Your task to perform on an android device: What's the weather going to be this weekend? Image 0: 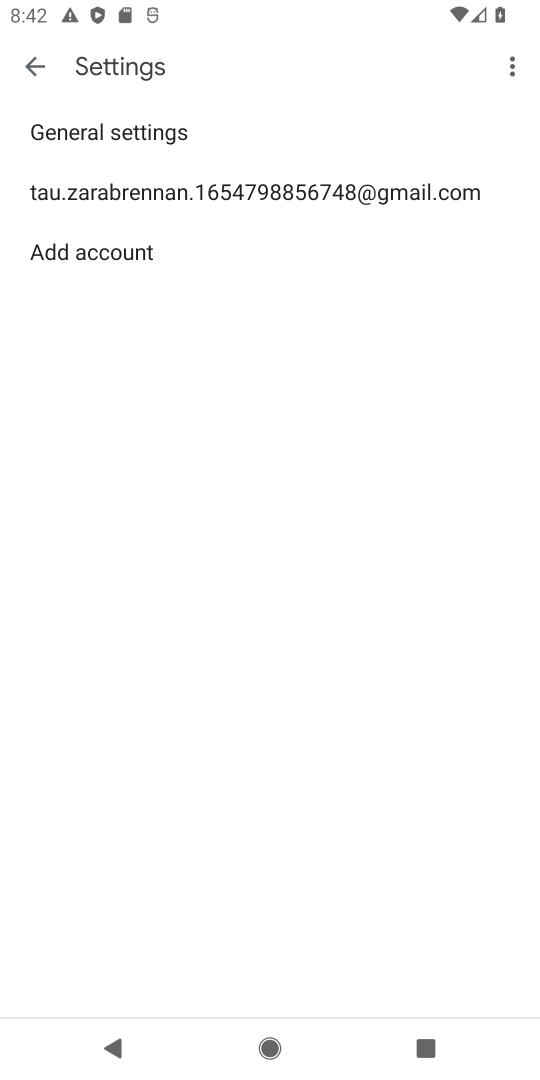
Step 0: press home button
Your task to perform on an android device: What's the weather going to be this weekend? Image 1: 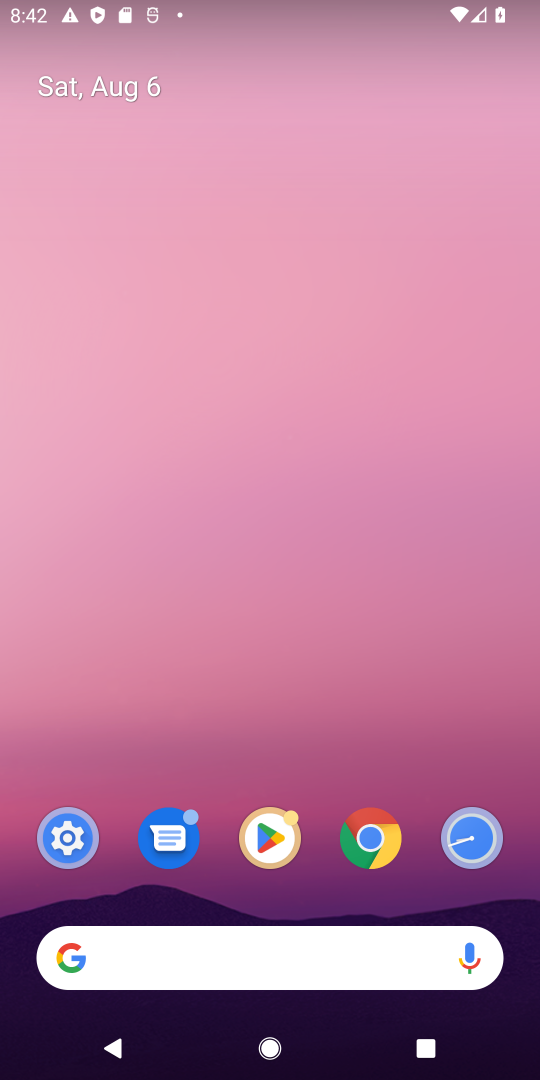
Step 1: drag from (317, 798) to (263, 11)
Your task to perform on an android device: What's the weather going to be this weekend? Image 2: 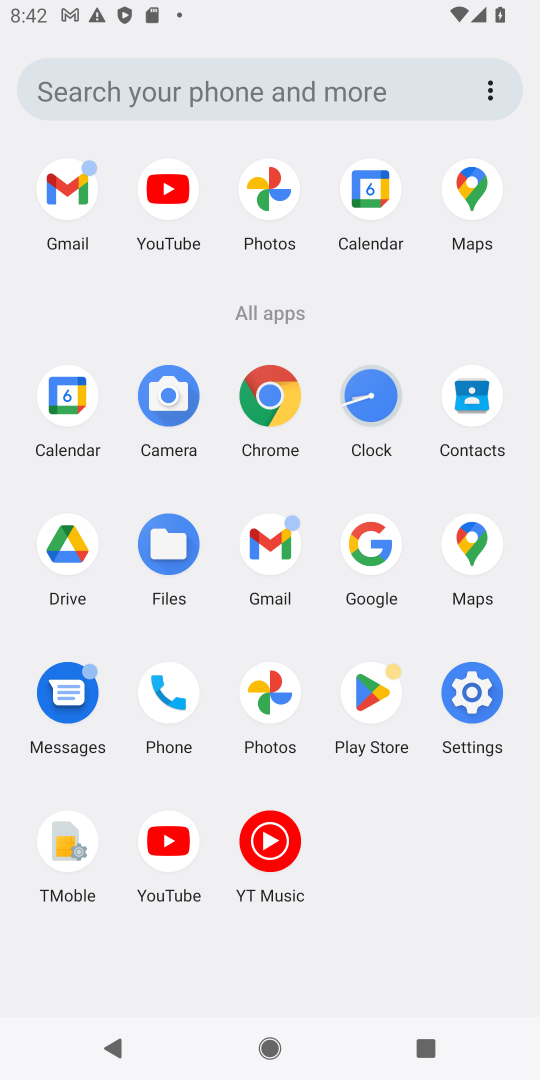
Step 2: click (389, 543)
Your task to perform on an android device: What's the weather going to be this weekend? Image 3: 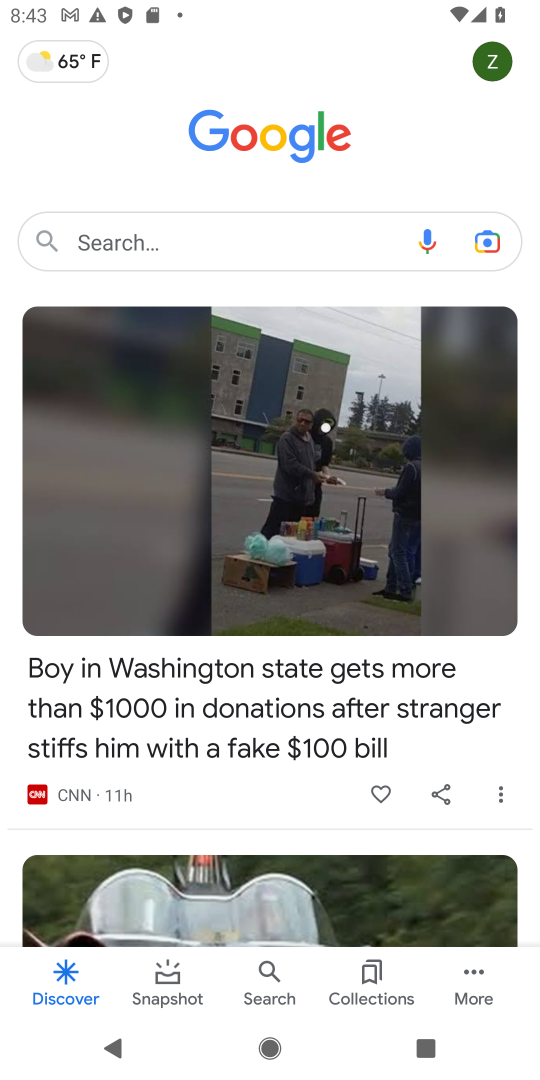
Step 3: click (198, 233)
Your task to perform on an android device: What's the weather going to be this weekend? Image 4: 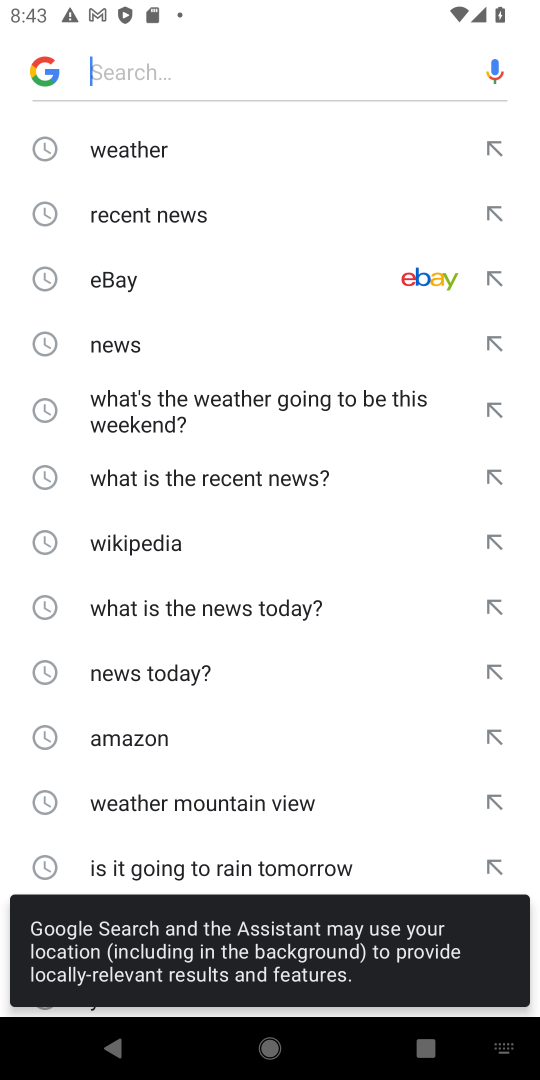
Step 4: click (176, 160)
Your task to perform on an android device: What's the weather going to be this weekend? Image 5: 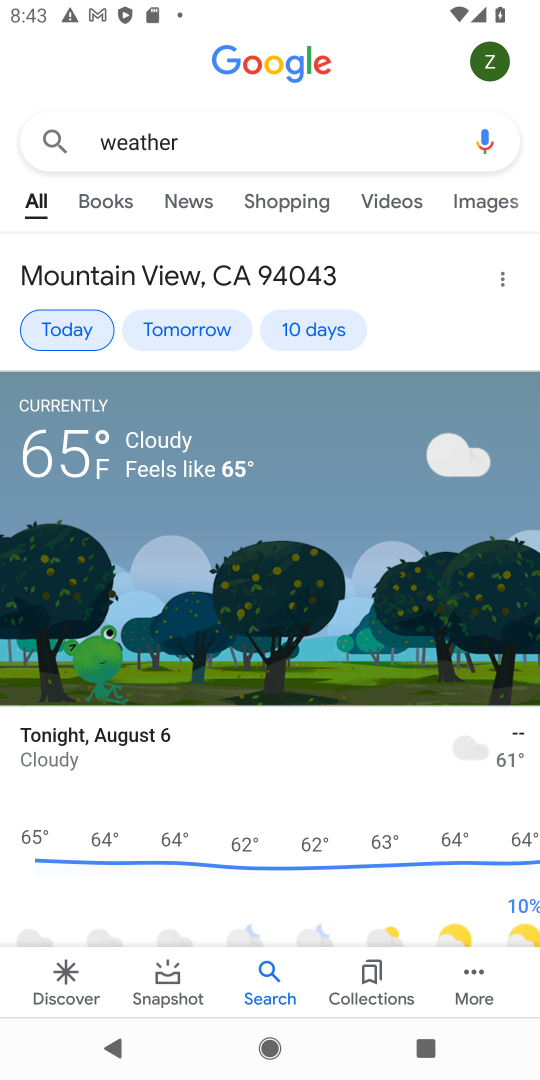
Step 5: task complete